Your task to perform on an android device: Go to CNN.com Image 0: 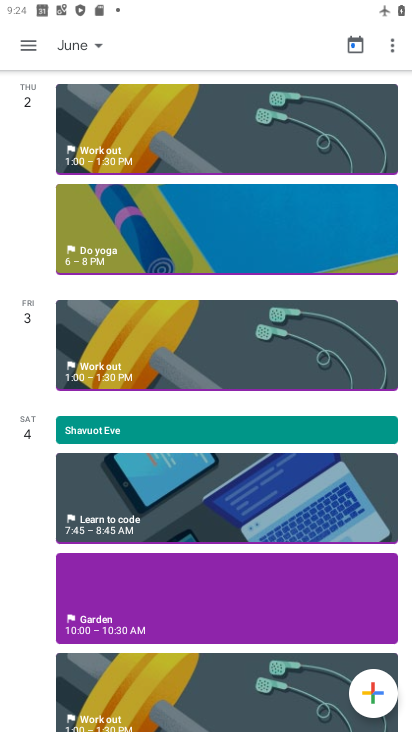
Step 0: press home button
Your task to perform on an android device: Go to CNN.com Image 1: 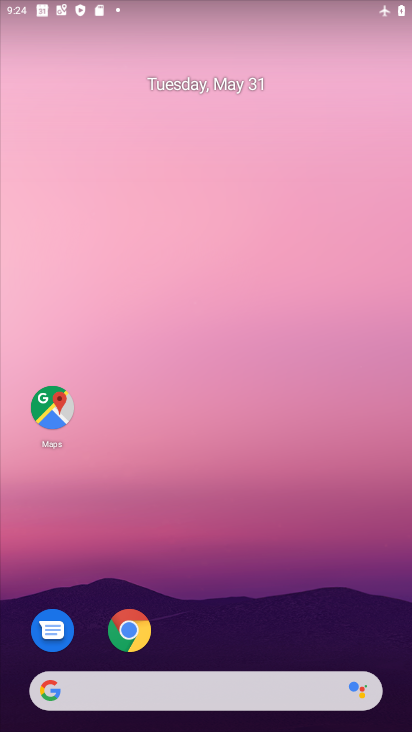
Step 1: click (126, 621)
Your task to perform on an android device: Go to CNN.com Image 2: 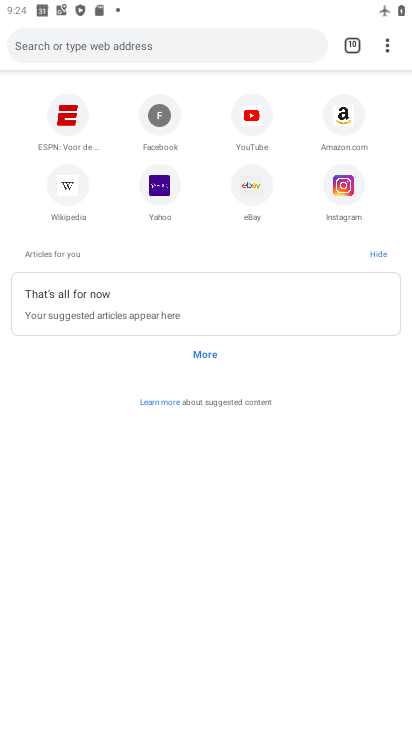
Step 2: click (180, 38)
Your task to perform on an android device: Go to CNN.com Image 3: 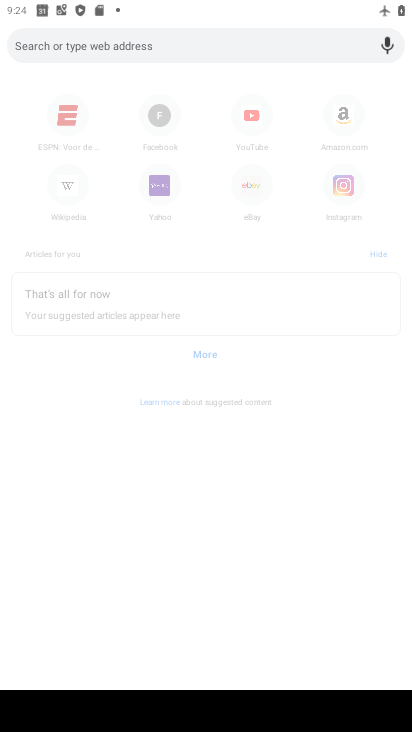
Step 3: type "CNN.com"
Your task to perform on an android device: Go to CNN.com Image 4: 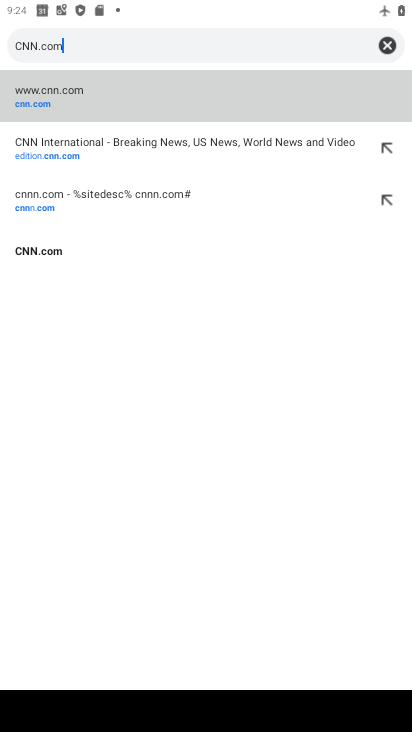
Step 4: click (193, 93)
Your task to perform on an android device: Go to CNN.com Image 5: 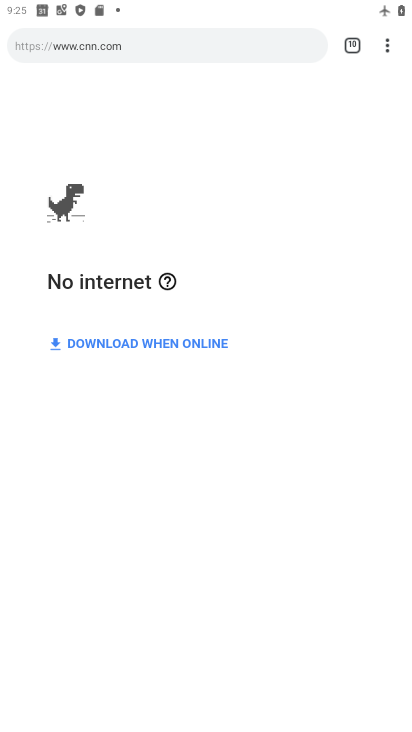
Step 5: task complete